Your task to perform on an android device: all mails in gmail Image 0: 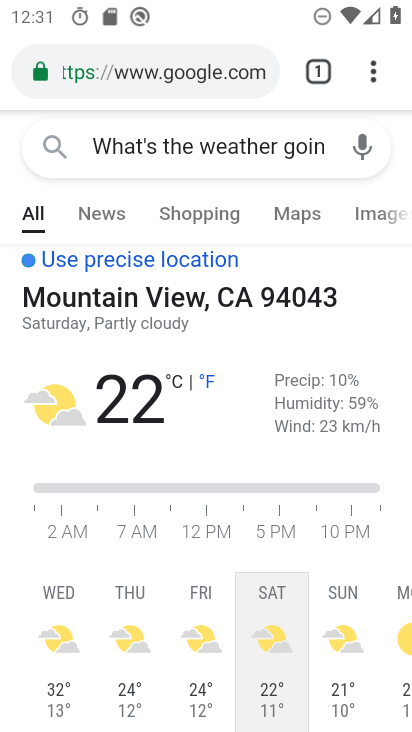
Step 0: press back button
Your task to perform on an android device: all mails in gmail Image 1: 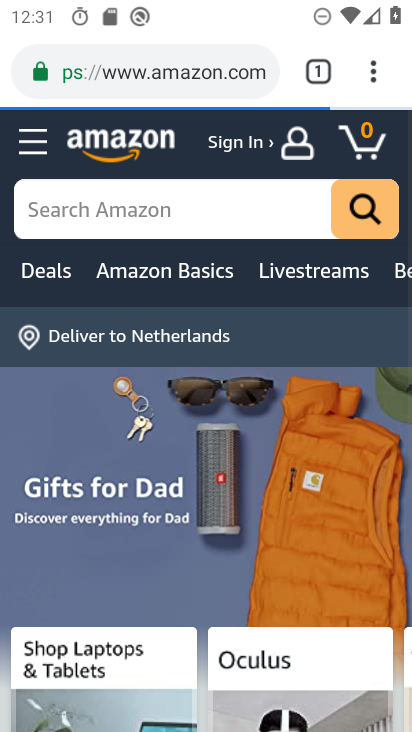
Step 1: press home button
Your task to perform on an android device: all mails in gmail Image 2: 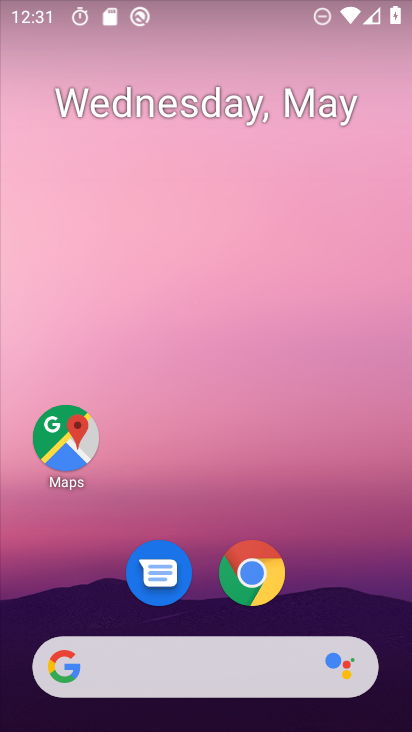
Step 2: drag from (327, 546) to (272, 74)
Your task to perform on an android device: all mails in gmail Image 3: 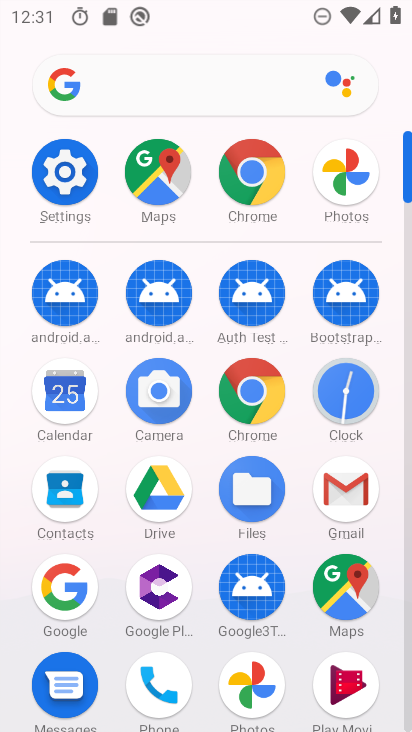
Step 3: drag from (10, 478) to (30, 203)
Your task to perform on an android device: all mails in gmail Image 4: 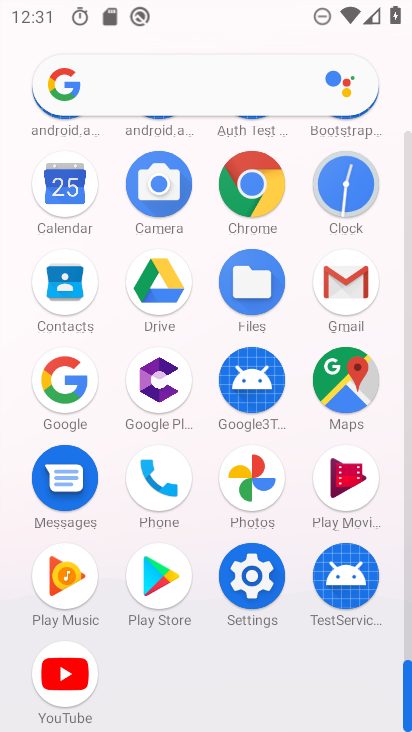
Step 4: click (344, 276)
Your task to perform on an android device: all mails in gmail Image 5: 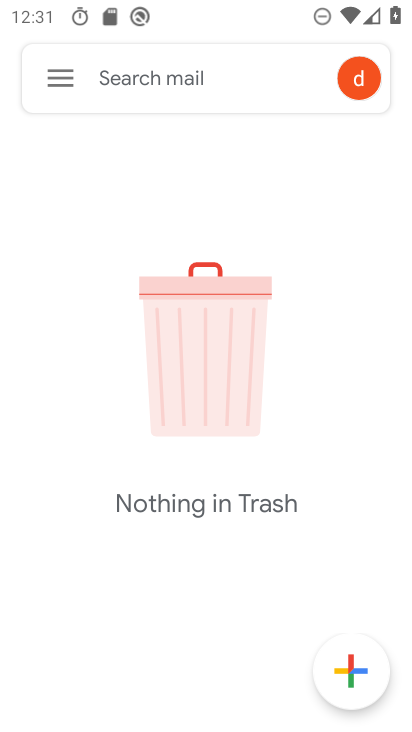
Step 5: click (52, 71)
Your task to perform on an android device: all mails in gmail Image 6: 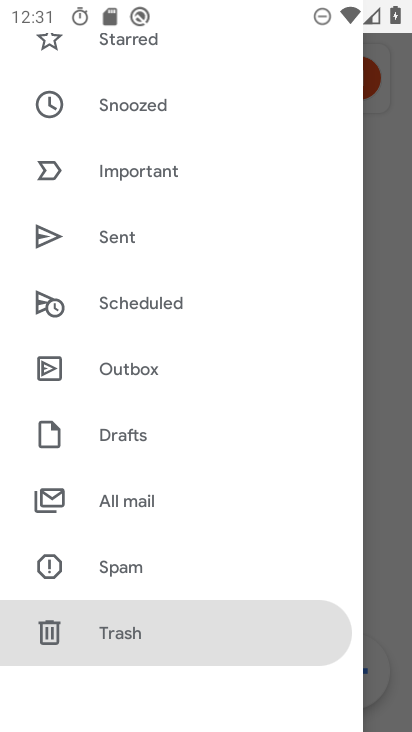
Step 6: click (140, 497)
Your task to perform on an android device: all mails in gmail Image 7: 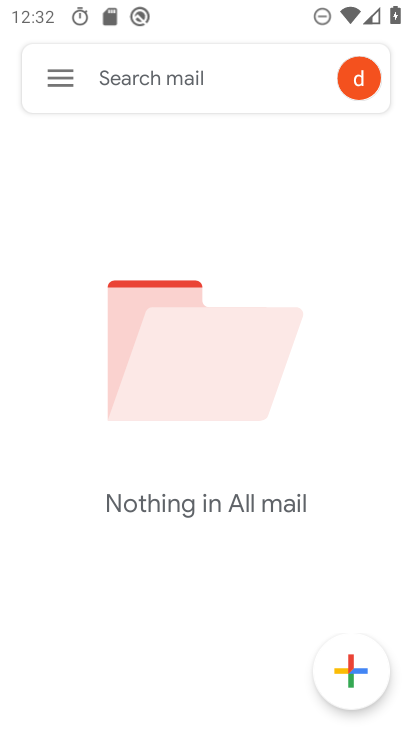
Step 7: task complete